Your task to perform on an android device: empty trash in the gmail app Image 0: 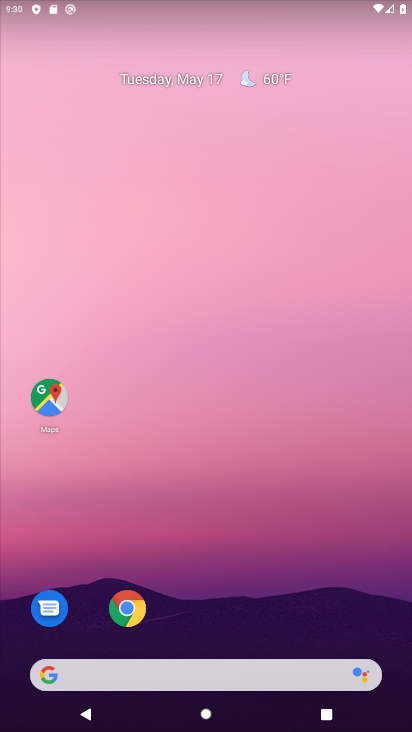
Step 0: drag from (215, 570) to (231, 97)
Your task to perform on an android device: empty trash in the gmail app Image 1: 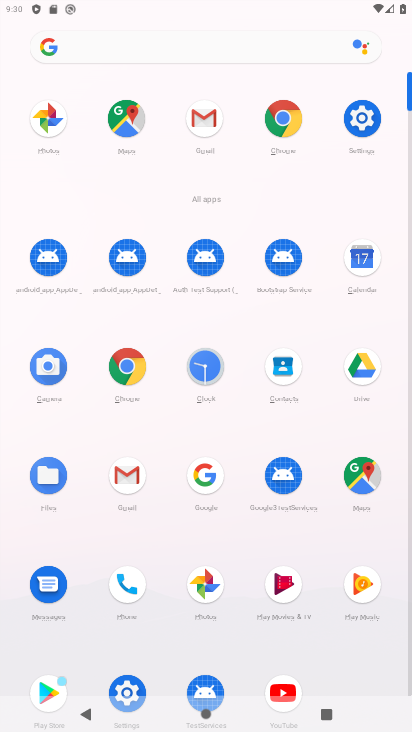
Step 1: click (197, 127)
Your task to perform on an android device: empty trash in the gmail app Image 2: 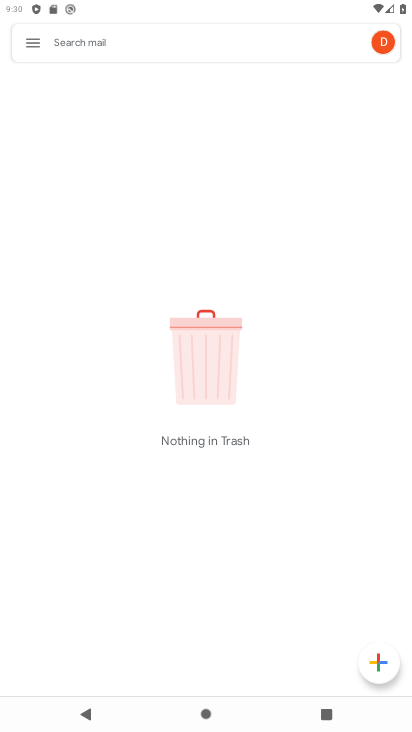
Step 2: click (33, 42)
Your task to perform on an android device: empty trash in the gmail app Image 3: 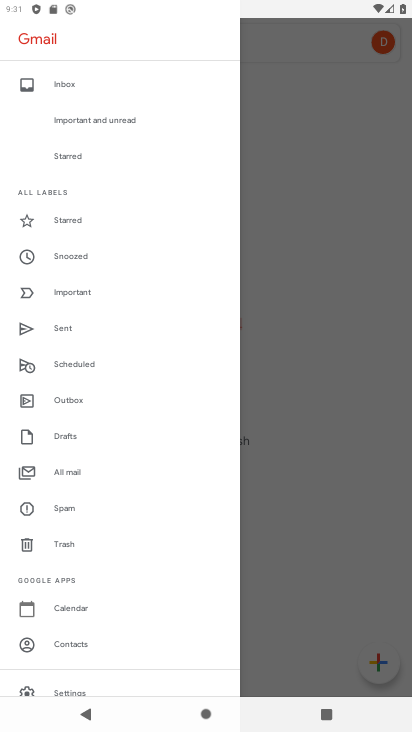
Step 3: click (73, 544)
Your task to perform on an android device: empty trash in the gmail app Image 4: 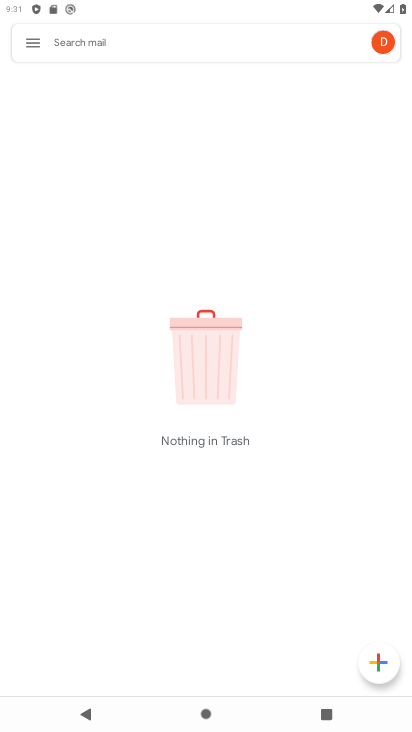
Step 4: task complete